Your task to perform on an android device: change the clock display to analog Image 0: 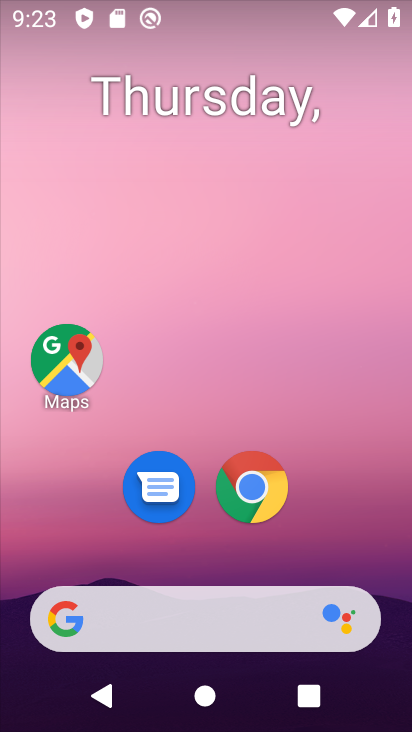
Step 0: drag from (323, 539) to (173, 218)
Your task to perform on an android device: change the clock display to analog Image 1: 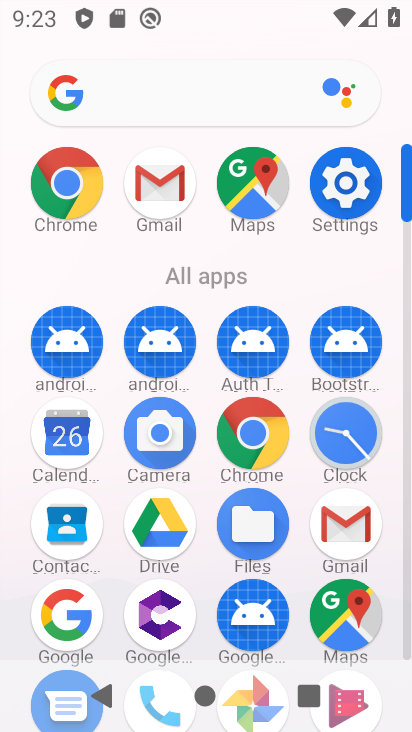
Step 1: click (351, 453)
Your task to perform on an android device: change the clock display to analog Image 2: 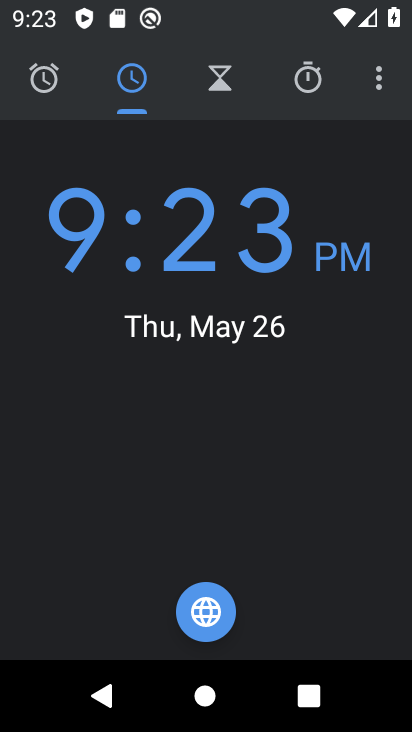
Step 2: click (376, 88)
Your task to perform on an android device: change the clock display to analog Image 3: 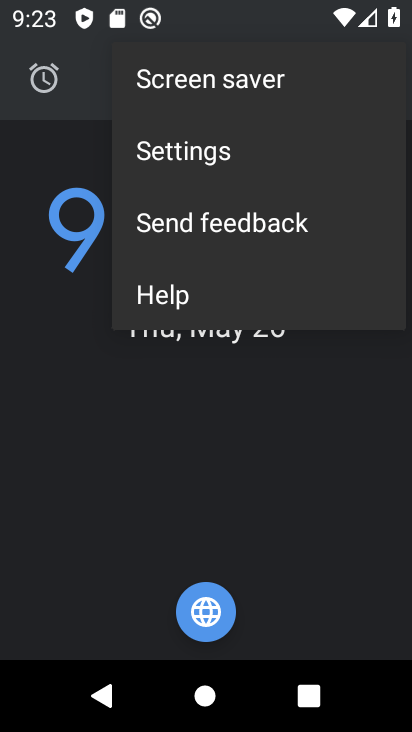
Step 3: click (225, 153)
Your task to perform on an android device: change the clock display to analog Image 4: 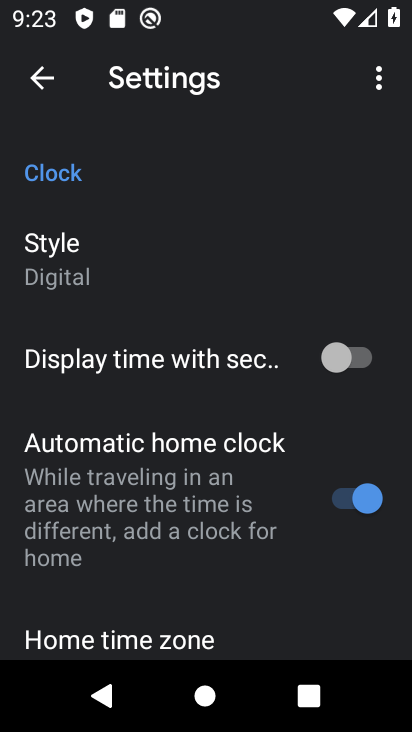
Step 4: click (77, 259)
Your task to perform on an android device: change the clock display to analog Image 5: 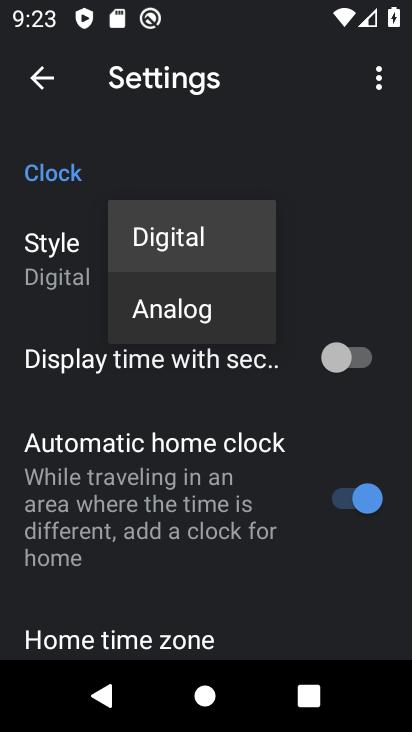
Step 5: click (172, 311)
Your task to perform on an android device: change the clock display to analog Image 6: 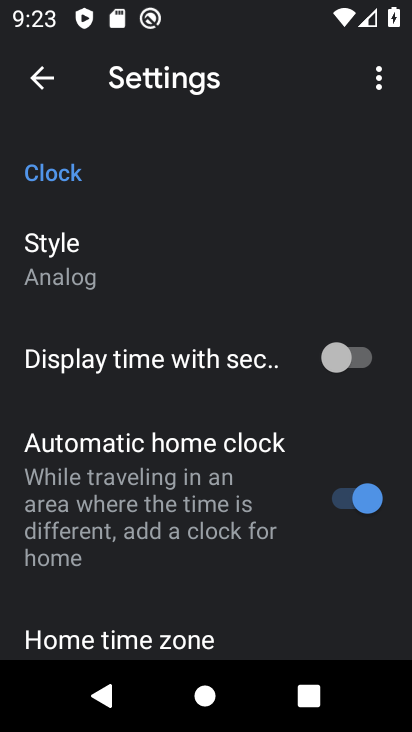
Step 6: task complete